Your task to perform on an android device: Search for seafood restaurants on Google Maps Image 0: 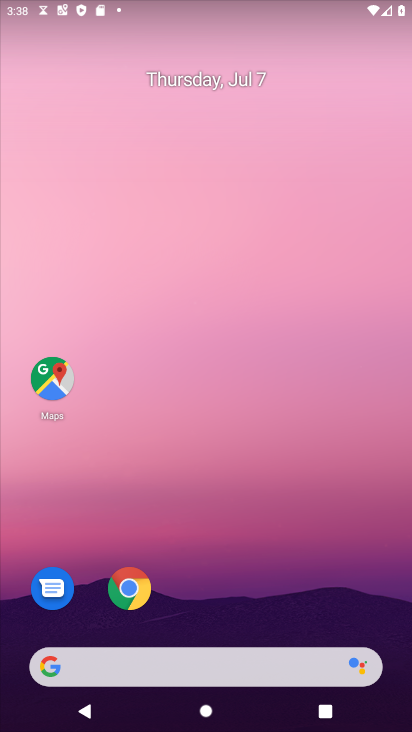
Step 0: click (49, 377)
Your task to perform on an android device: Search for seafood restaurants on Google Maps Image 1: 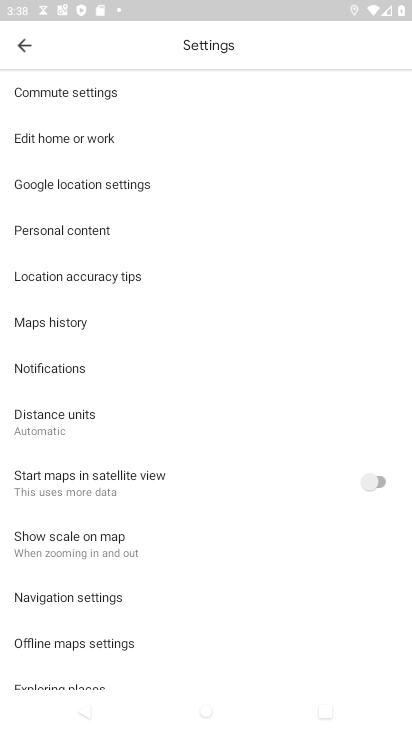
Step 1: press back button
Your task to perform on an android device: Search for seafood restaurants on Google Maps Image 2: 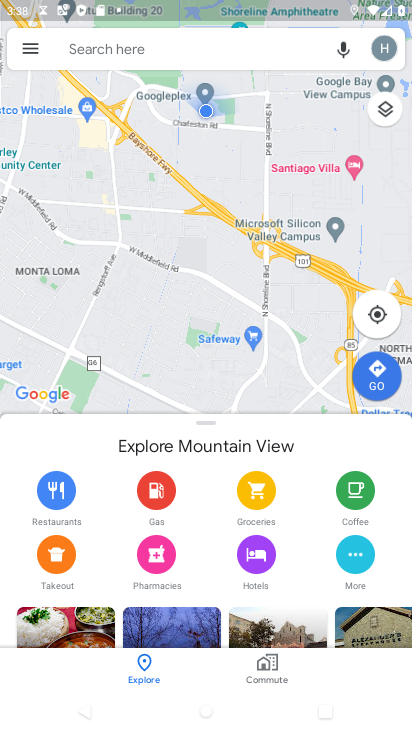
Step 2: click (219, 47)
Your task to perform on an android device: Search for seafood restaurants on Google Maps Image 3: 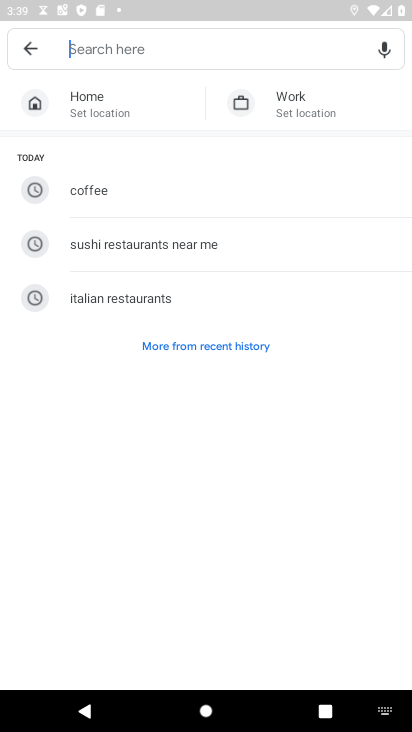
Step 3: type "seafood restaurants"
Your task to perform on an android device: Search for seafood restaurants on Google Maps Image 4: 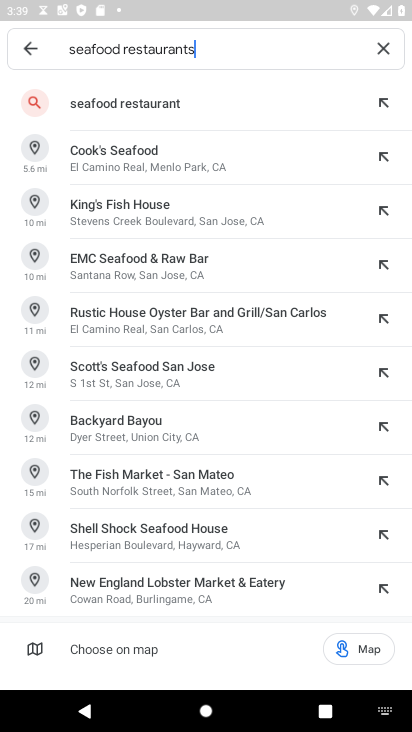
Step 4: click (160, 104)
Your task to perform on an android device: Search for seafood restaurants on Google Maps Image 5: 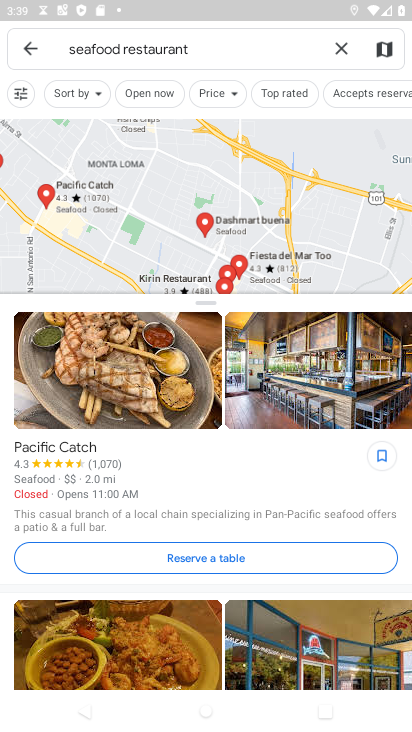
Step 5: task complete